Your task to perform on an android device: turn pop-ups off in chrome Image 0: 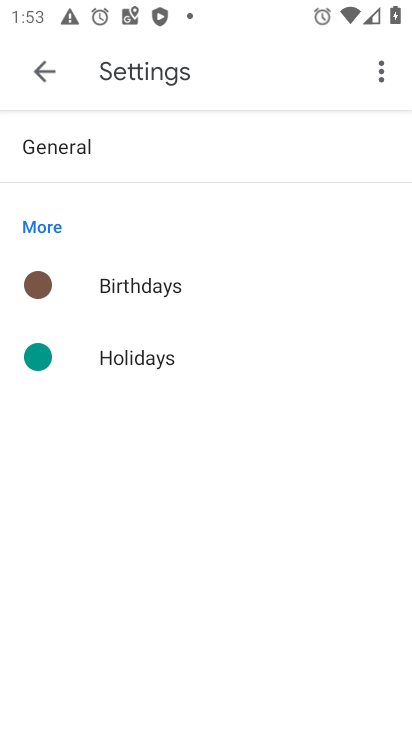
Step 0: press home button
Your task to perform on an android device: turn pop-ups off in chrome Image 1: 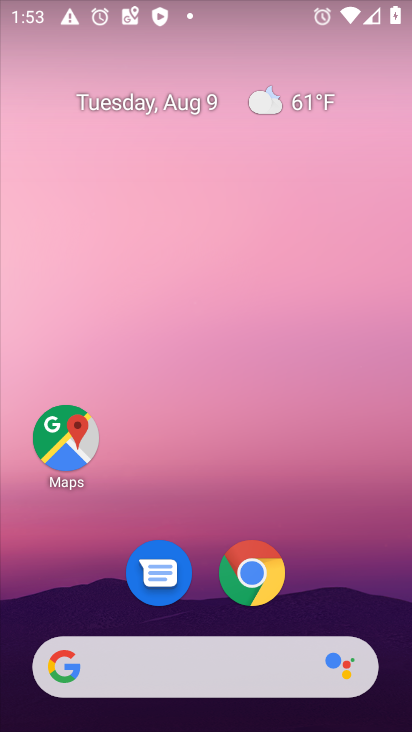
Step 1: click (243, 568)
Your task to perform on an android device: turn pop-ups off in chrome Image 2: 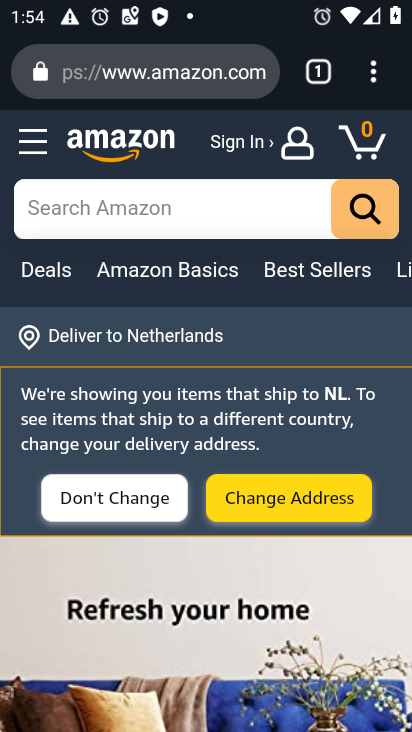
Step 2: click (375, 75)
Your task to perform on an android device: turn pop-ups off in chrome Image 3: 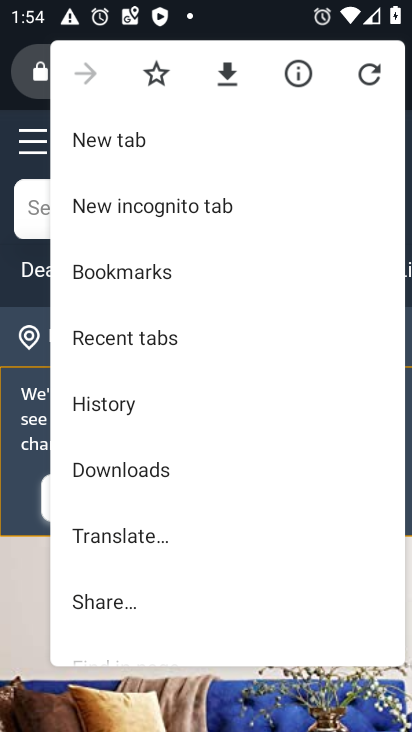
Step 3: drag from (142, 535) to (295, 211)
Your task to perform on an android device: turn pop-ups off in chrome Image 4: 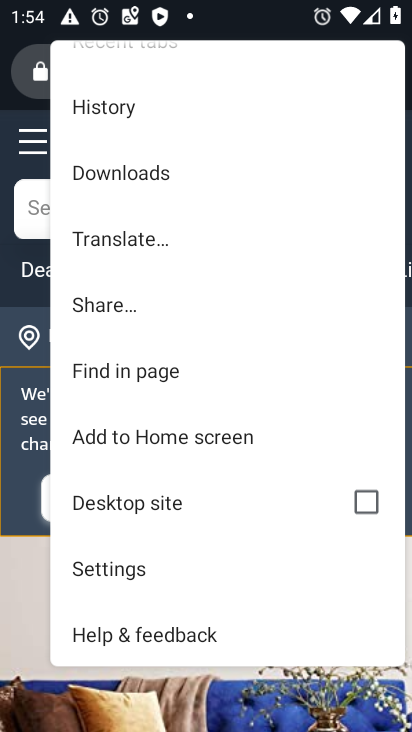
Step 4: click (95, 568)
Your task to perform on an android device: turn pop-ups off in chrome Image 5: 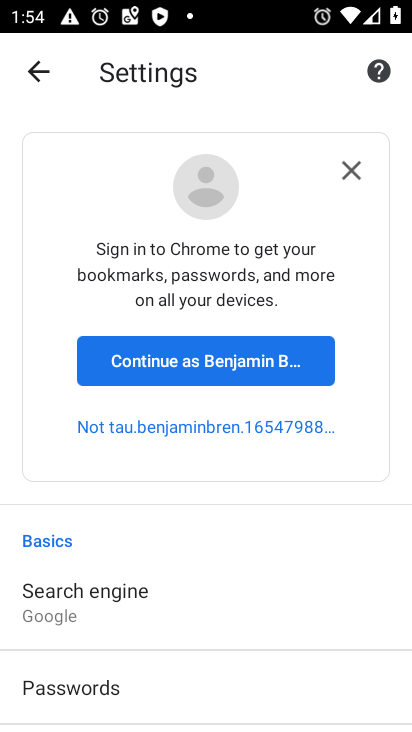
Step 5: click (345, 171)
Your task to perform on an android device: turn pop-ups off in chrome Image 6: 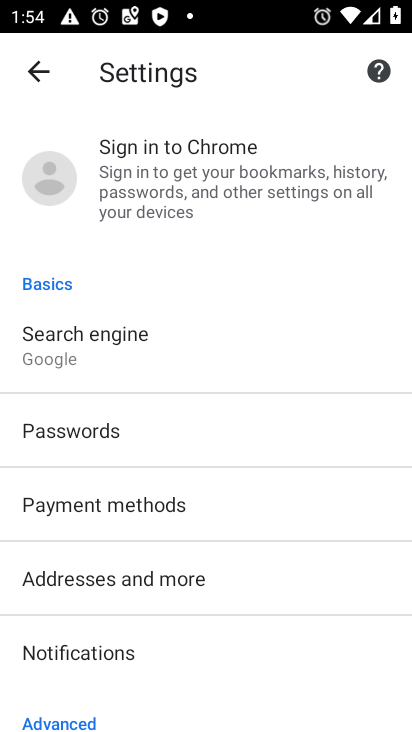
Step 6: drag from (14, 594) to (229, 144)
Your task to perform on an android device: turn pop-ups off in chrome Image 7: 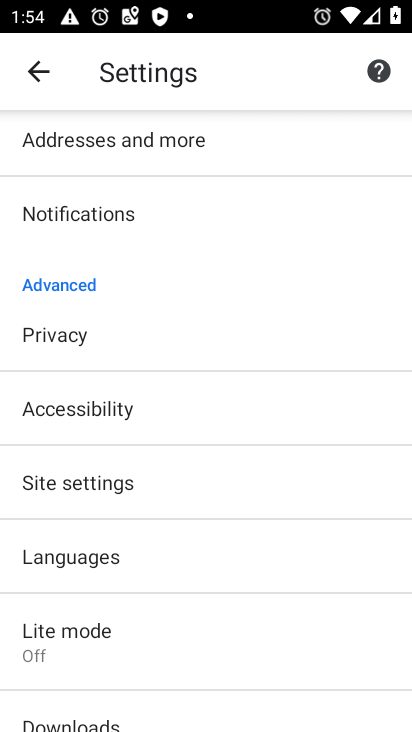
Step 7: click (109, 488)
Your task to perform on an android device: turn pop-ups off in chrome Image 8: 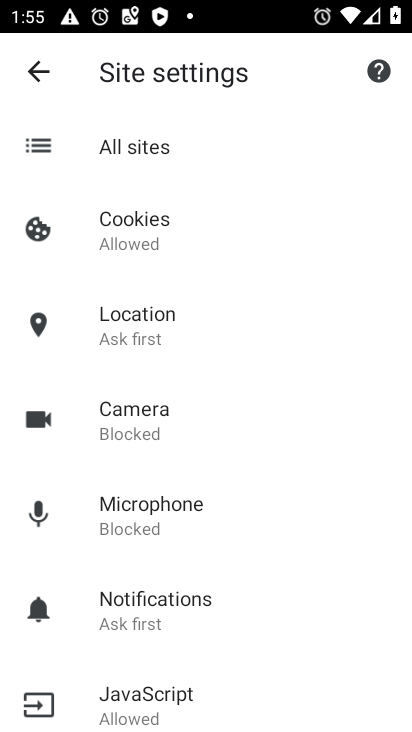
Step 8: drag from (1, 691) to (217, 336)
Your task to perform on an android device: turn pop-ups off in chrome Image 9: 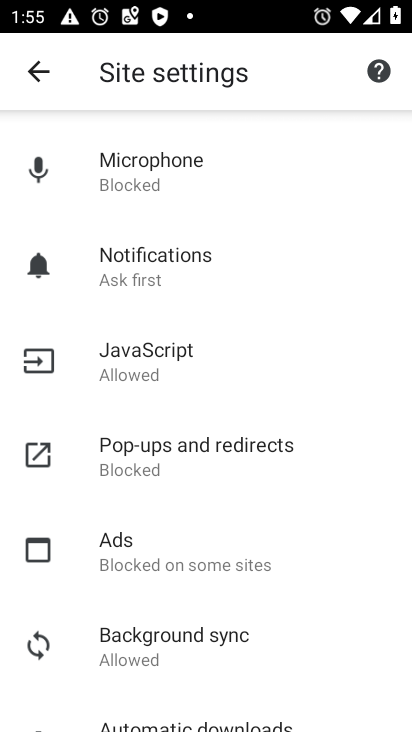
Step 9: click (181, 458)
Your task to perform on an android device: turn pop-ups off in chrome Image 10: 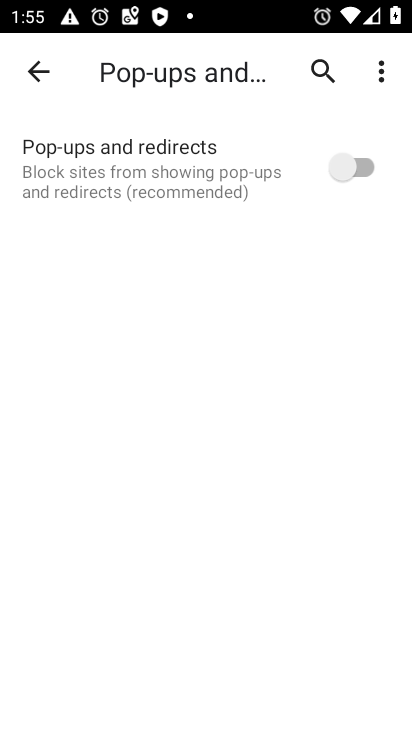
Step 10: task complete